Your task to perform on an android device: turn off data saver in the chrome app Image 0: 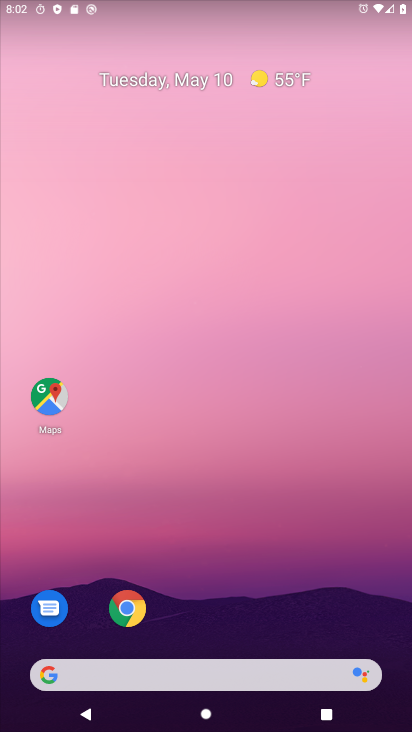
Step 0: click (126, 608)
Your task to perform on an android device: turn off data saver in the chrome app Image 1: 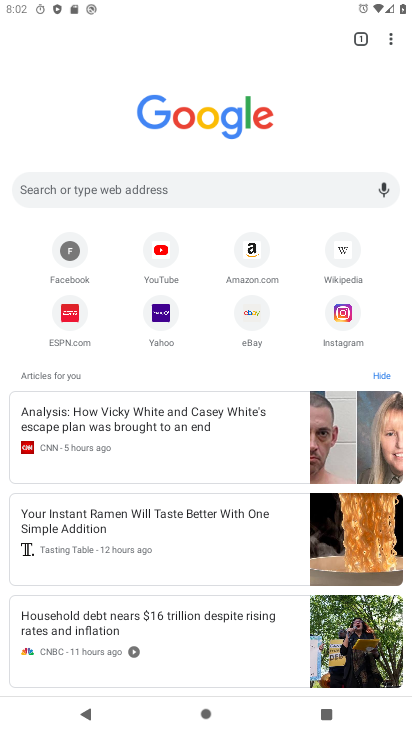
Step 1: click (390, 35)
Your task to perform on an android device: turn off data saver in the chrome app Image 2: 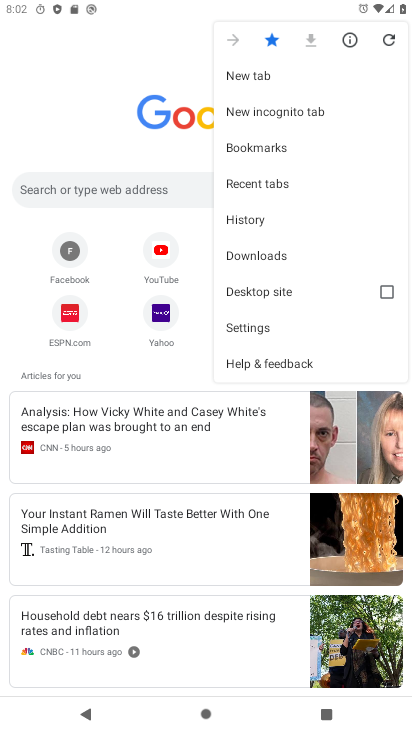
Step 2: click (246, 327)
Your task to perform on an android device: turn off data saver in the chrome app Image 3: 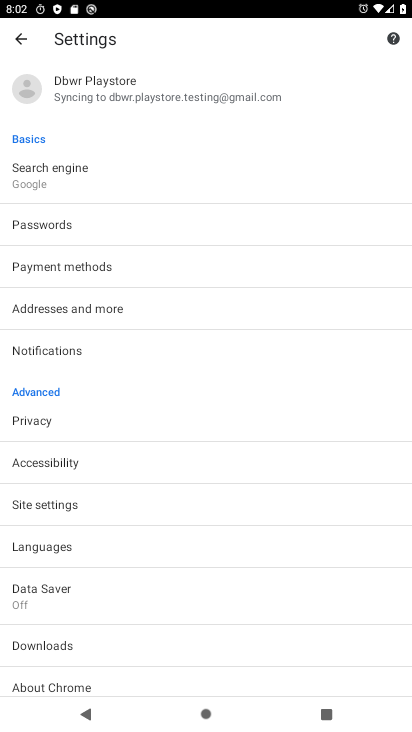
Step 3: click (64, 594)
Your task to perform on an android device: turn off data saver in the chrome app Image 4: 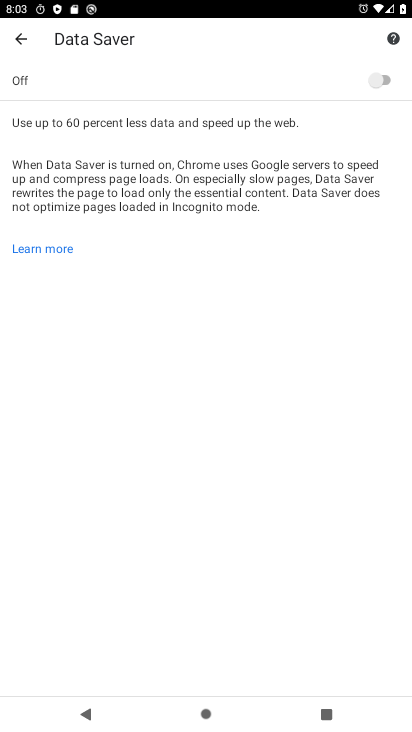
Step 4: task complete